Your task to perform on an android device: turn on priority inbox in the gmail app Image 0: 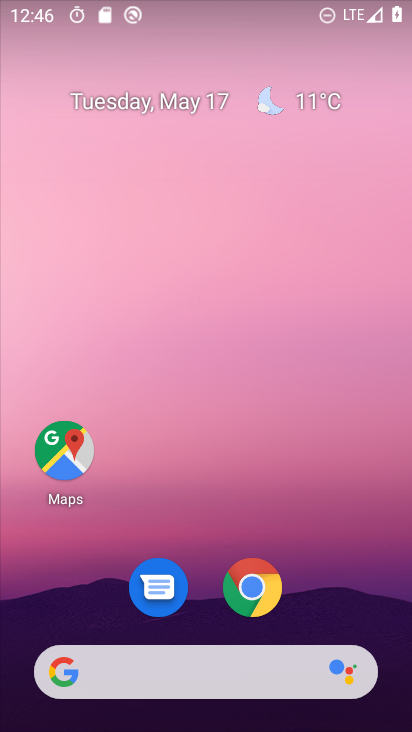
Step 0: drag from (188, 608) to (255, 38)
Your task to perform on an android device: turn on priority inbox in the gmail app Image 1: 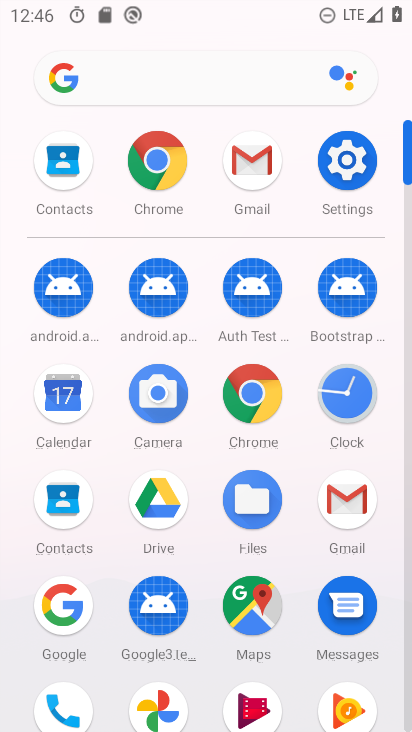
Step 1: click (351, 495)
Your task to perform on an android device: turn on priority inbox in the gmail app Image 2: 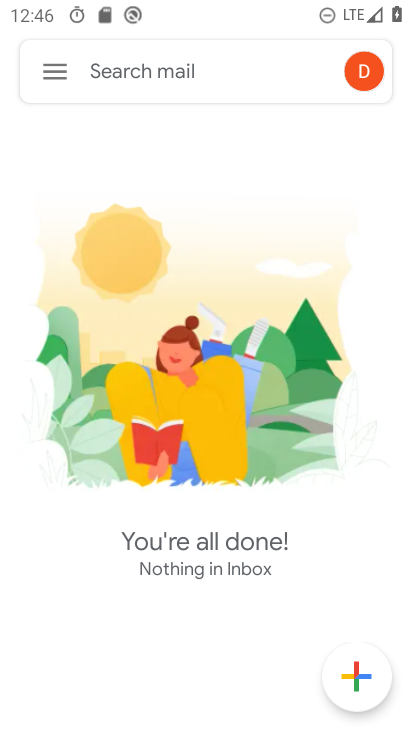
Step 2: click (50, 57)
Your task to perform on an android device: turn on priority inbox in the gmail app Image 3: 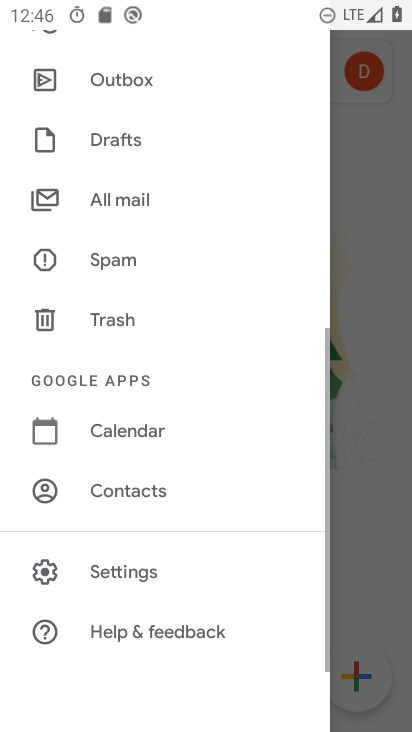
Step 3: click (139, 595)
Your task to perform on an android device: turn on priority inbox in the gmail app Image 4: 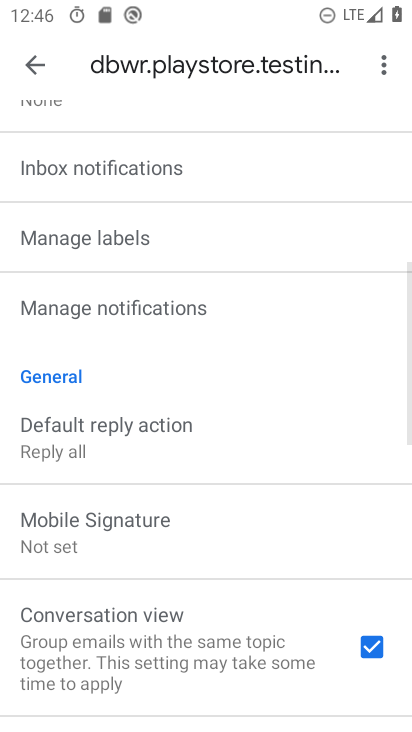
Step 4: drag from (170, 223) to (301, 724)
Your task to perform on an android device: turn on priority inbox in the gmail app Image 5: 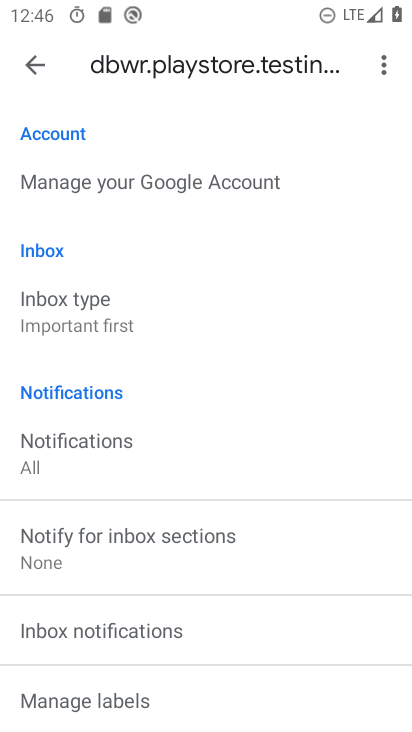
Step 5: drag from (150, 271) to (326, 723)
Your task to perform on an android device: turn on priority inbox in the gmail app Image 6: 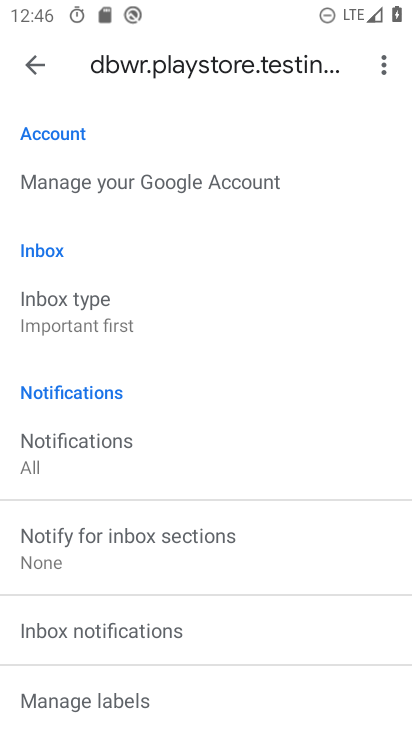
Step 6: click (117, 314)
Your task to perform on an android device: turn on priority inbox in the gmail app Image 7: 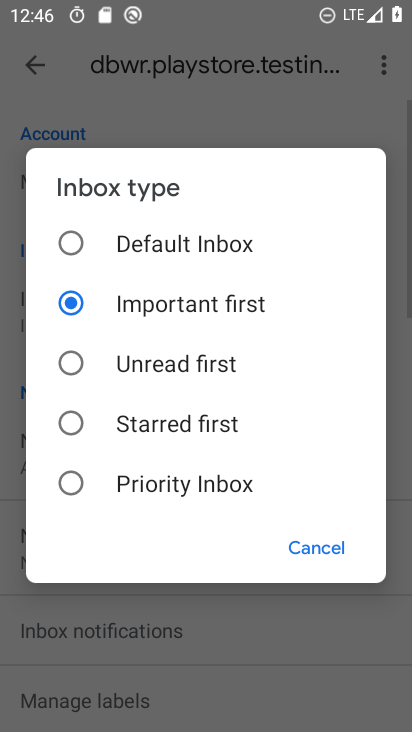
Step 7: click (172, 496)
Your task to perform on an android device: turn on priority inbox in the gmail app Image 8: 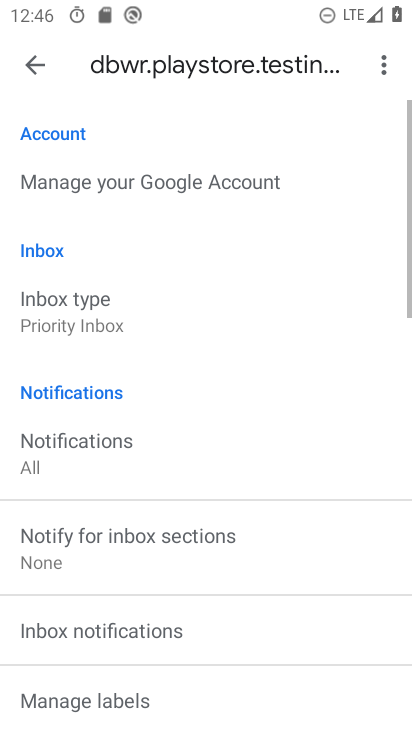
Step 8: task complete